Your task to perform on an android device: open a new tab in the chrome app Image 0: 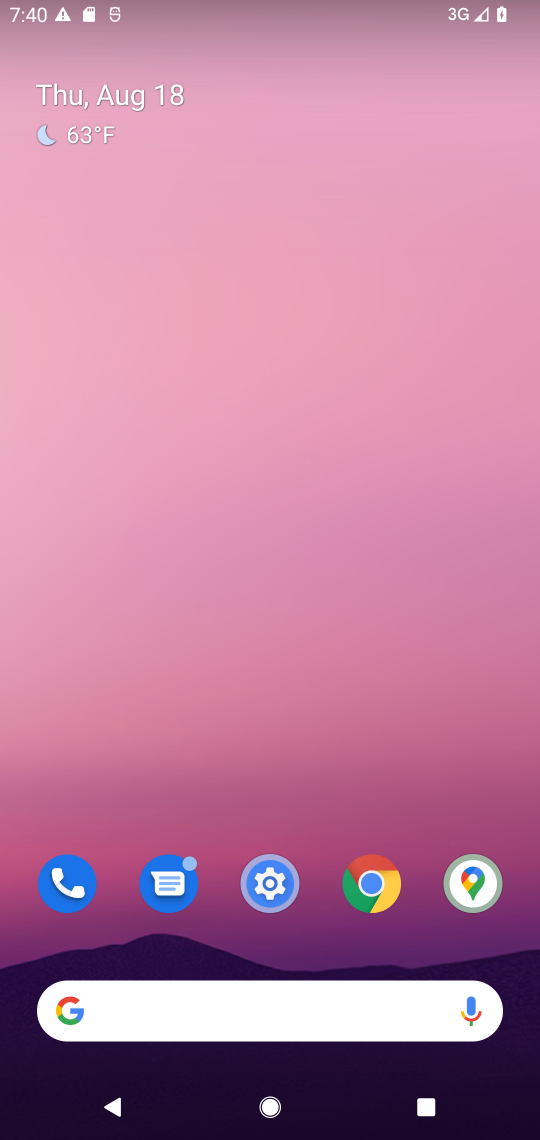
Step 0: click (348, 881)
Your task to perform on an android device: open a new tab in the chrome app Image 1: 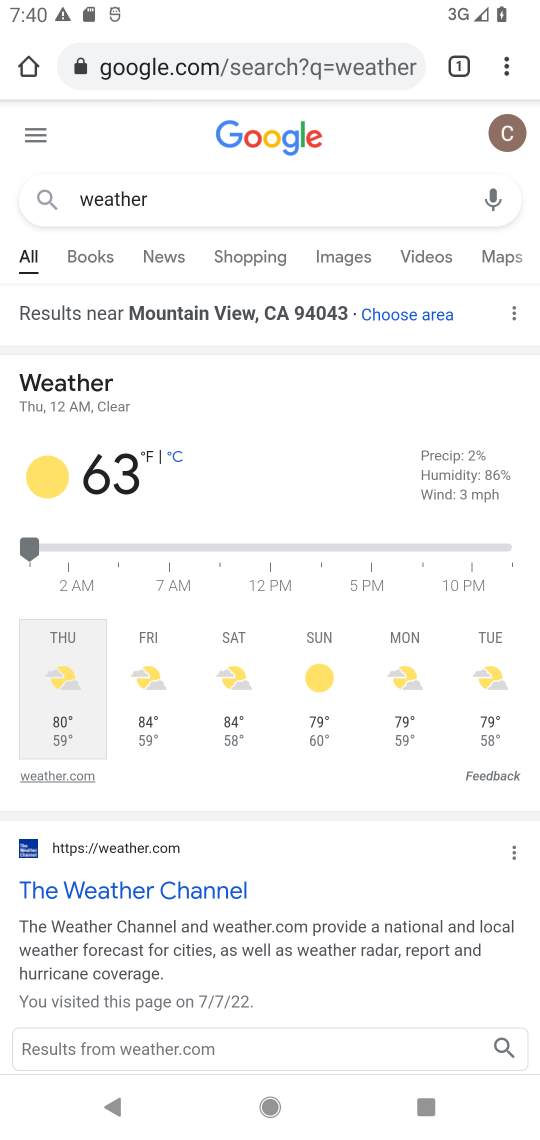
Step 1: click (508, 69)
Your task to perform on an android device: open a new tab in the chrome app Image 2: 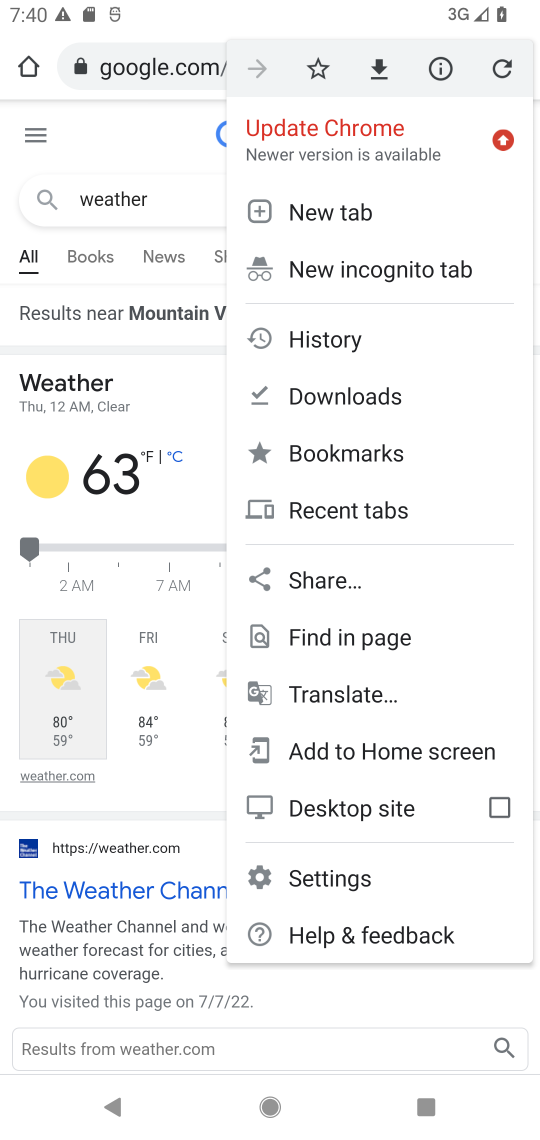
Step 2: click (313, 218)
Your task to perform on an android device: open a new tab in the chrome app Image 3: 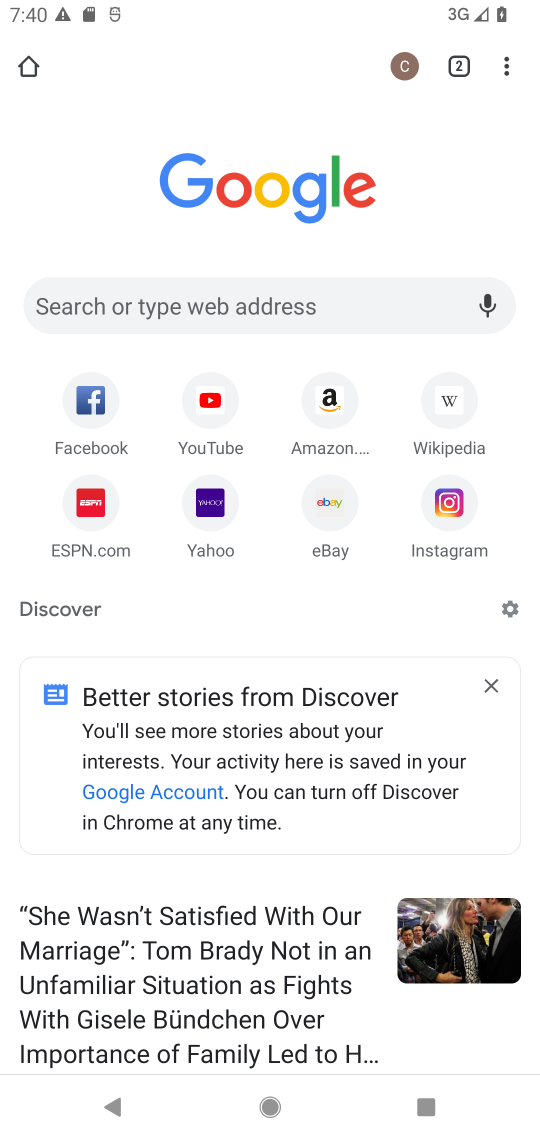
Step 3: task complete